Your task to perform on an android device: uninstall "Microsoft Authenticator" Image 0: 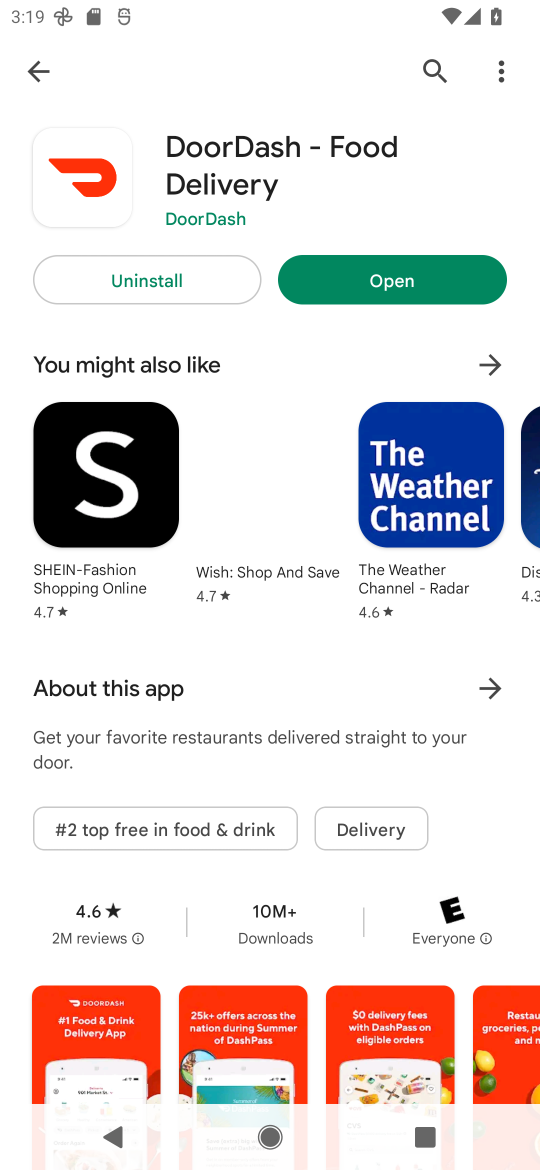
Step 0: press home button
Your task to perform on an android device: uninstall "Microsoft Authenticator" Image 1: 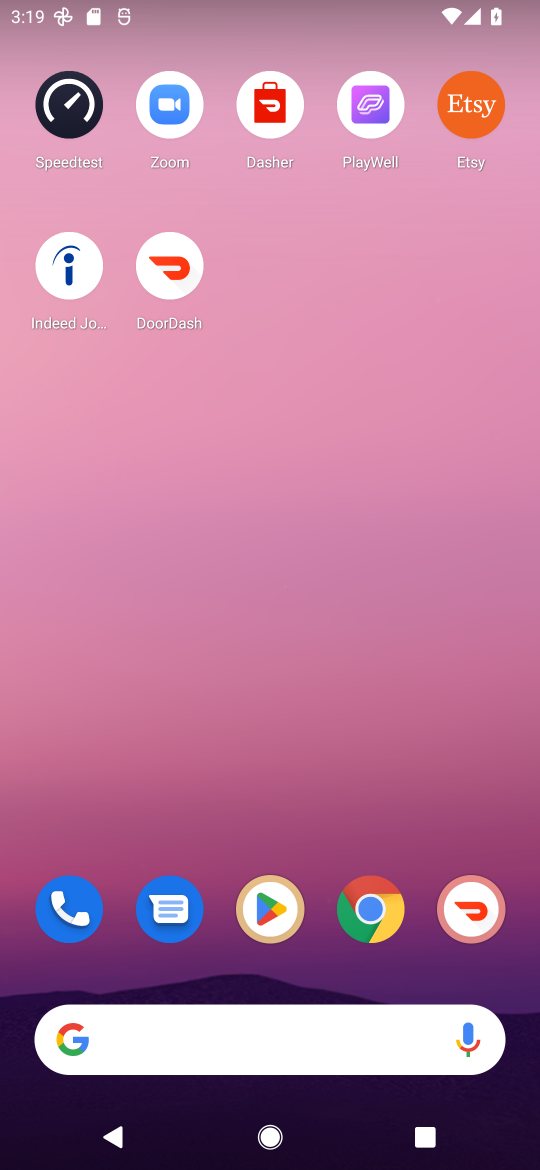
Step 1: click (258, 901)
Your task to perform on an android device: uninstall "Microsoft Authenticator" Image 2: 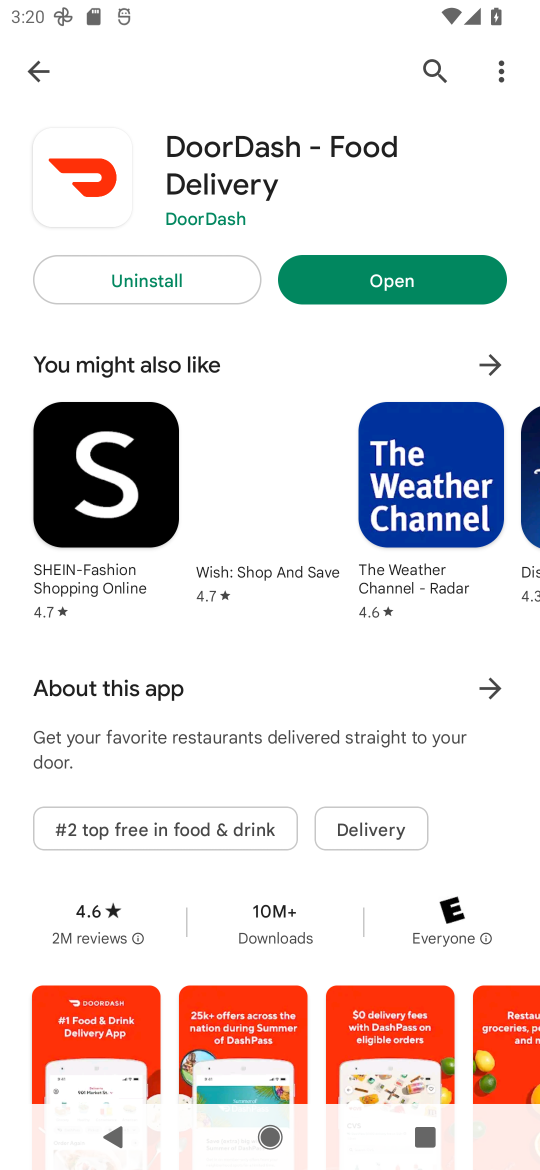
Step 2: click (428, 66)
Your task to perform on an android device: uninstall "Microsoft Authenticator" Image 3: 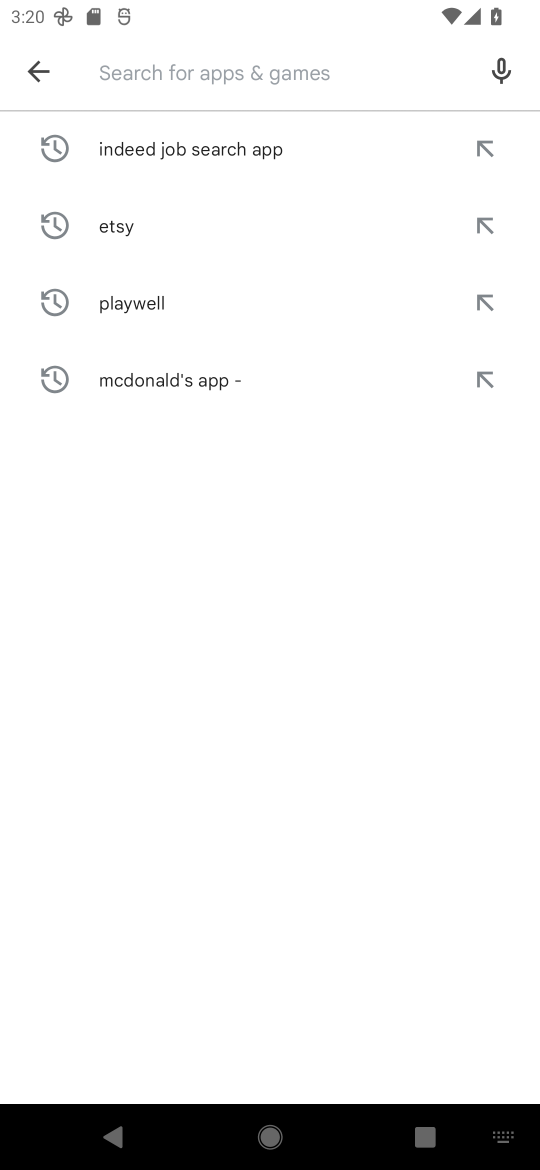
Step 3: type "Microsoft Authenticator"
Your task to perform on an android device: uninstall "Microsoft Authenticator" Image 4: 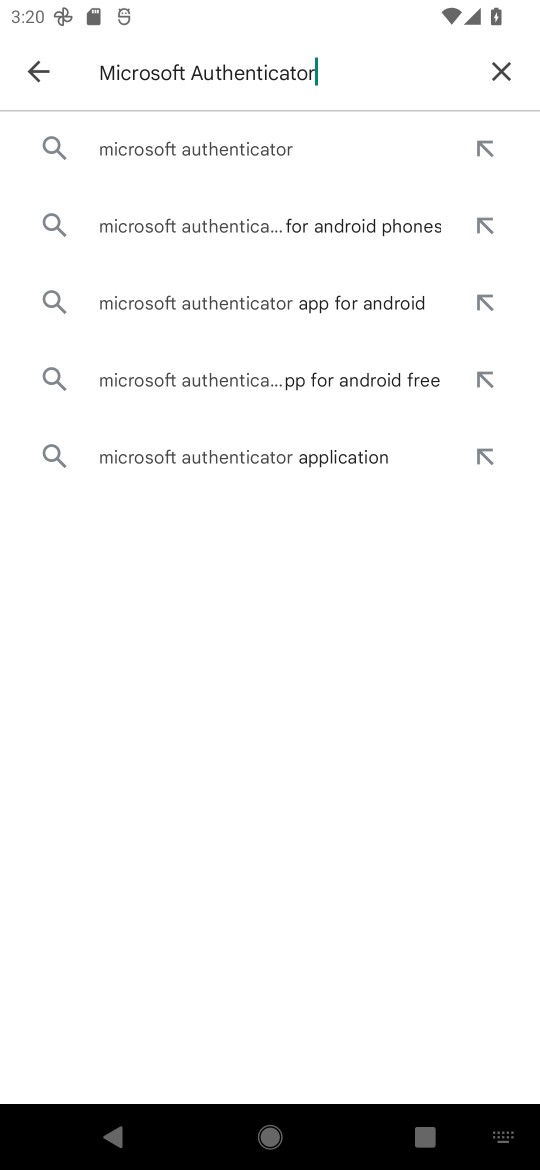
Step 4: click (303, 146)
Your task to perform on an android device: uninstall "Microsoft Authenticator" Image 5: 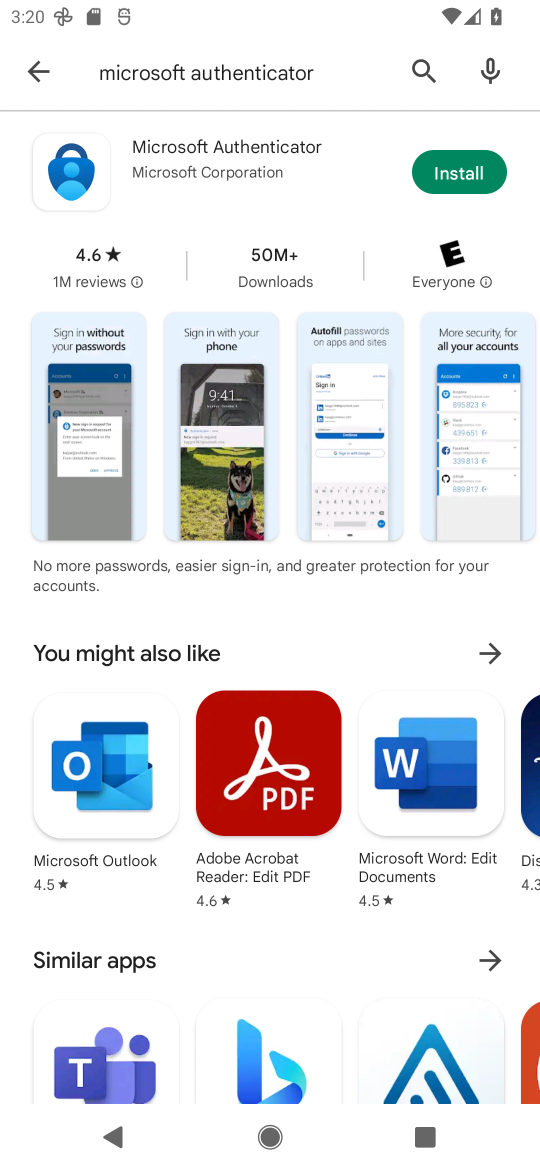
Step 5: task complete